Your task to perform on an android device: empty trash in google photos Image 0: 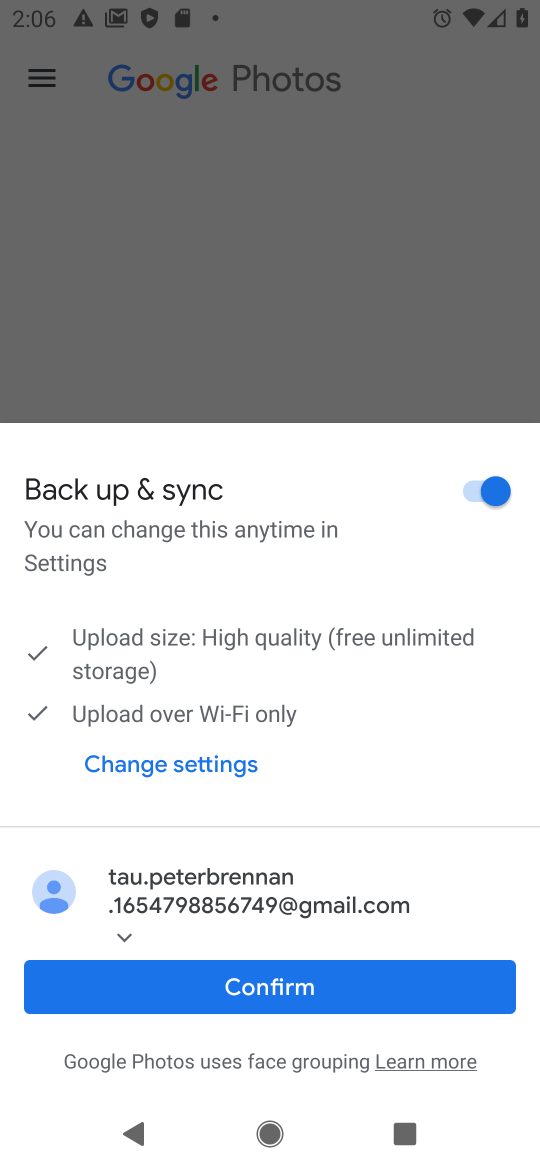
Step 0: press home button
Your task to perform on an android device: empty trash in google photos Image 1: 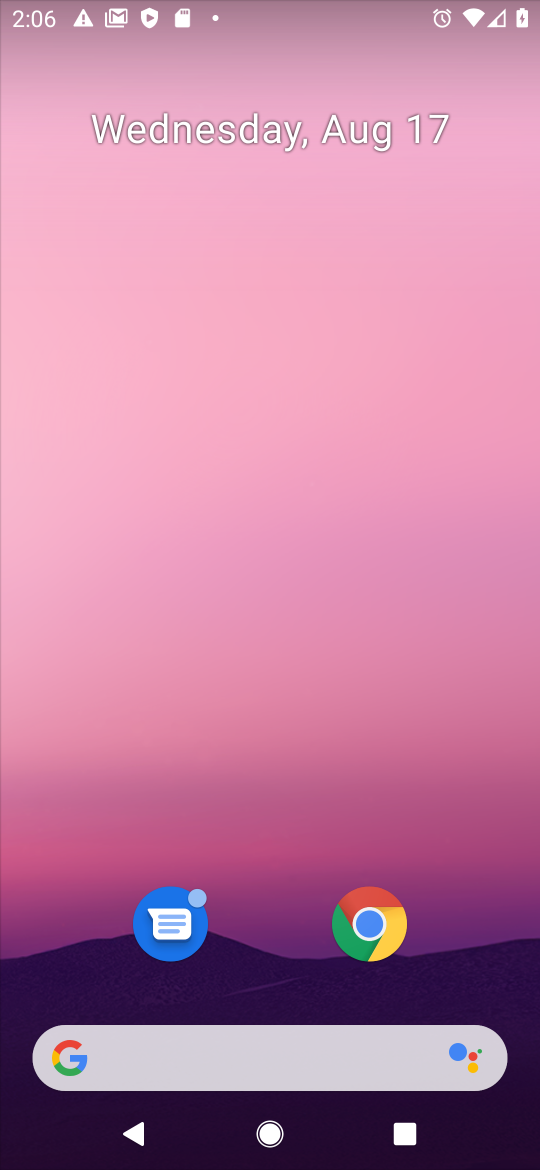
Step 1: drag from (247, 933) to (235, 171)
Your task to perform on an android device: empty trash in google photos Image 2: 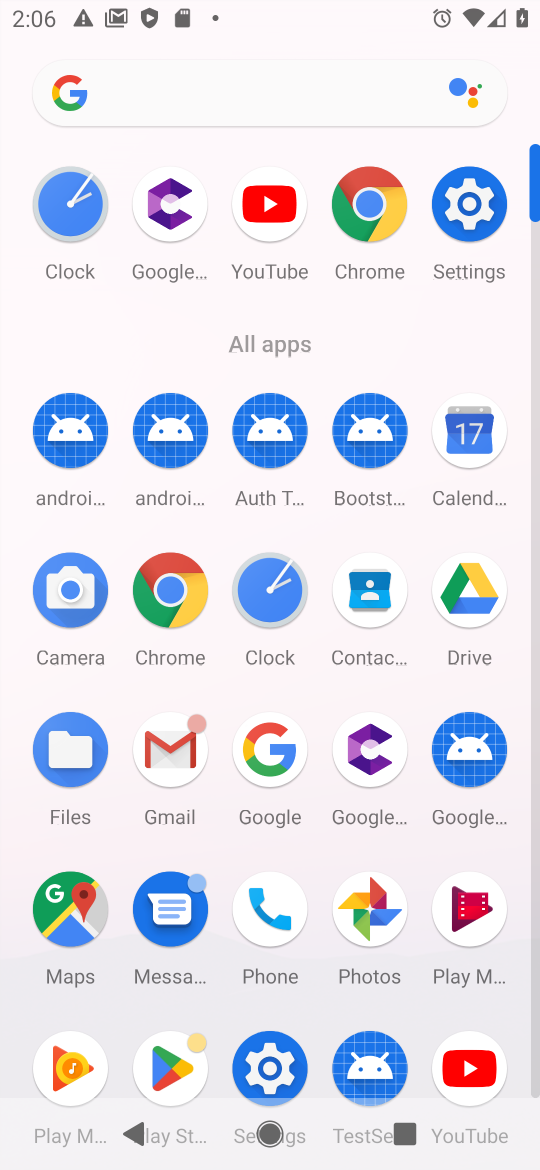
Step 2: click (356, 897)
Your task to perform on an android device: empty trash in google photos Image 3: 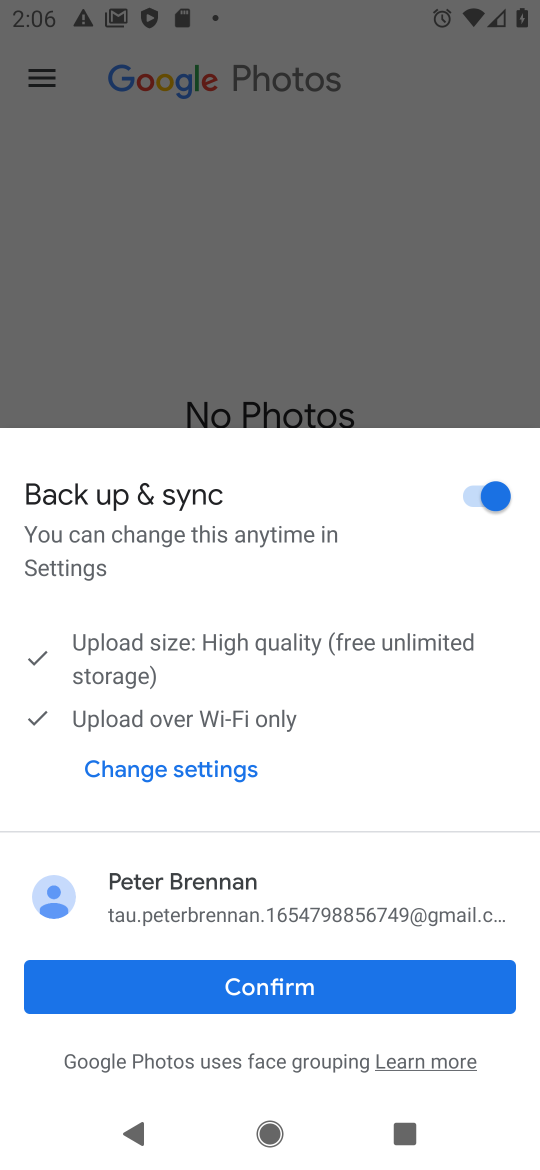
Step 3: click (277, 1010)
Your task to perform on an android device: empty trash in google photos Image 4: 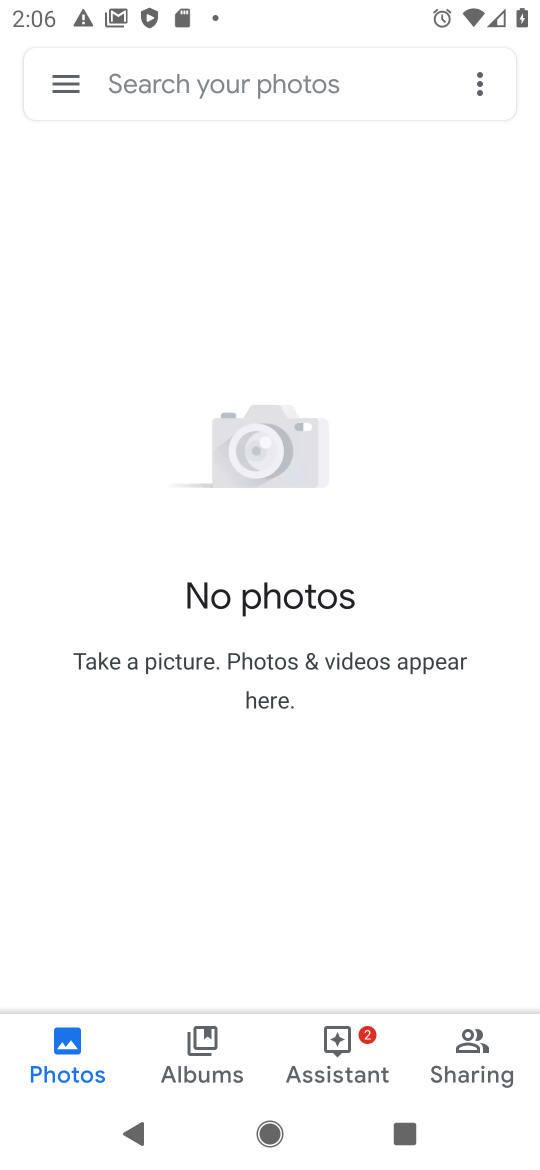
Step 4: click (54, 96)
Your task to perform on an android device: empty trash in google photos Image 5: 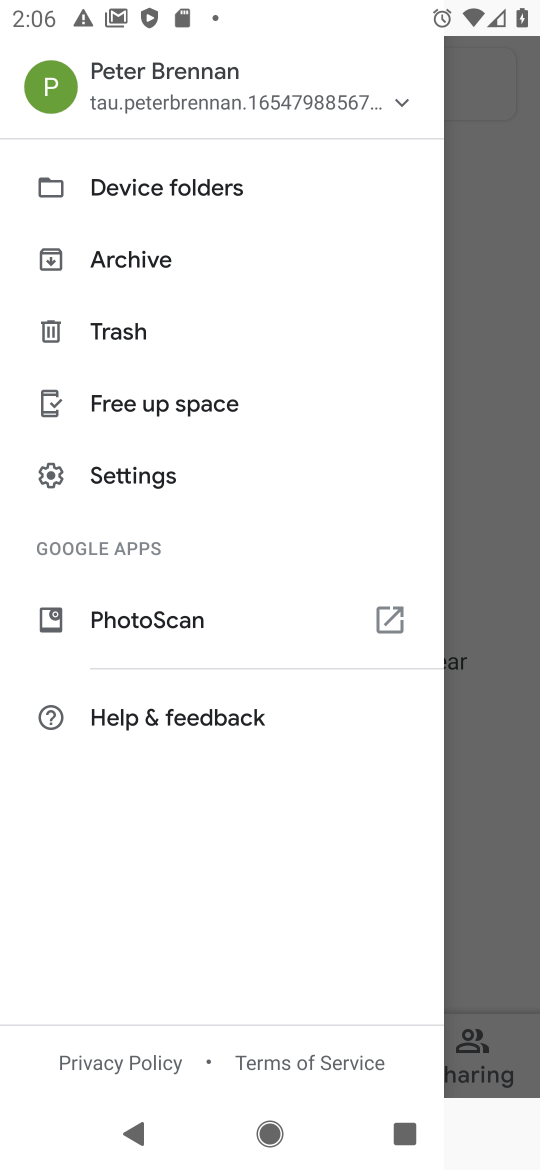
Step 5: click (79, 316)
Your task to perform on an android device: empty trash in google photos Image 6: 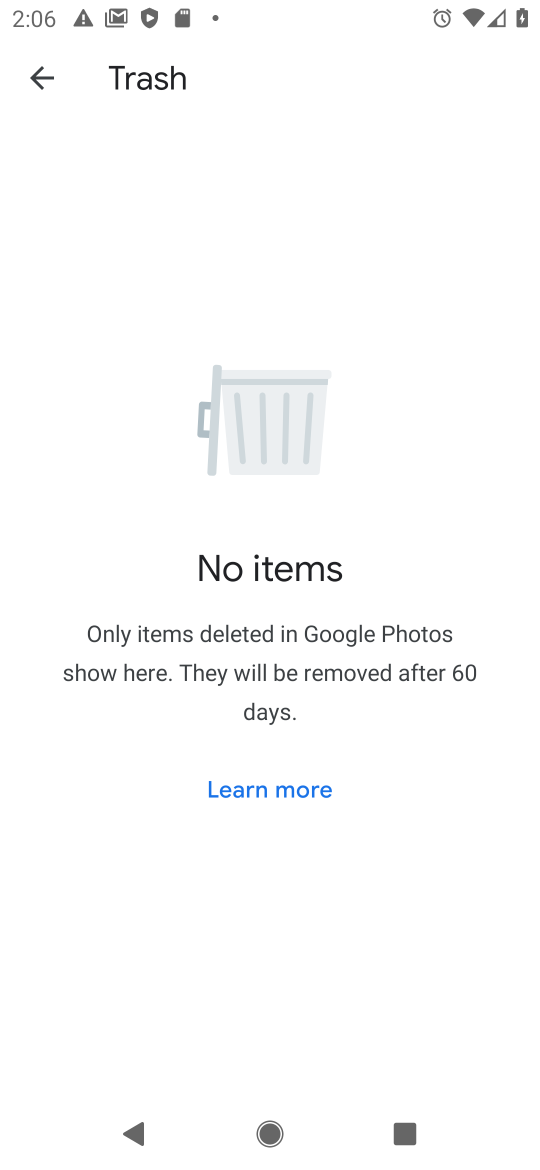
Step 6: task complete